Your task to perform on an android device: set default search engine in the chrome app Image 0: 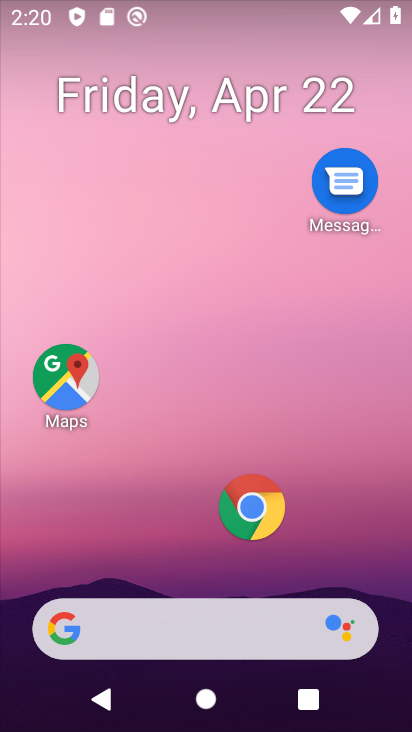
Step 0: click (255, 509)
Your task to perform on an android device: set default search engine in the chrome app Image 1: 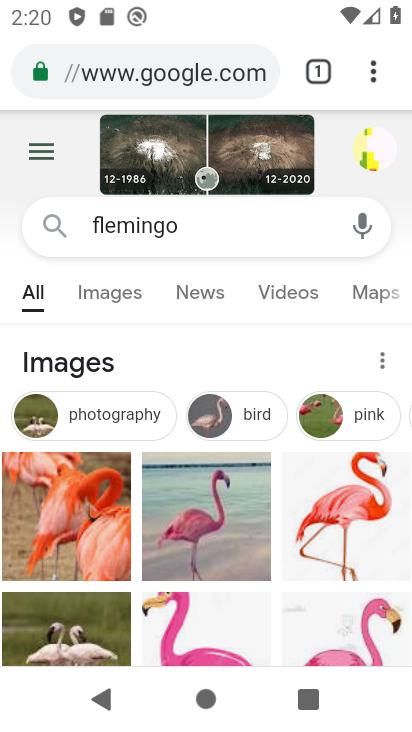
Step 1: click (375, 78)
Your task to perform on an android device: set default search engine in the chrome app Image 2: 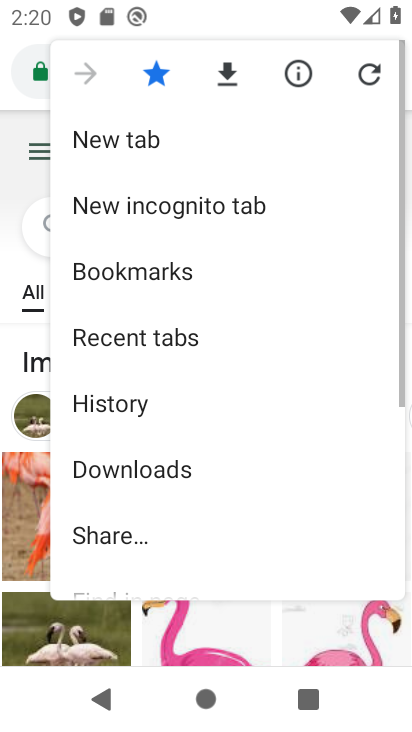
Step 2: drag from (158, 515) to (177, 210)
Your task to perform on an android device: set default search engine in the chrome app Image 3: 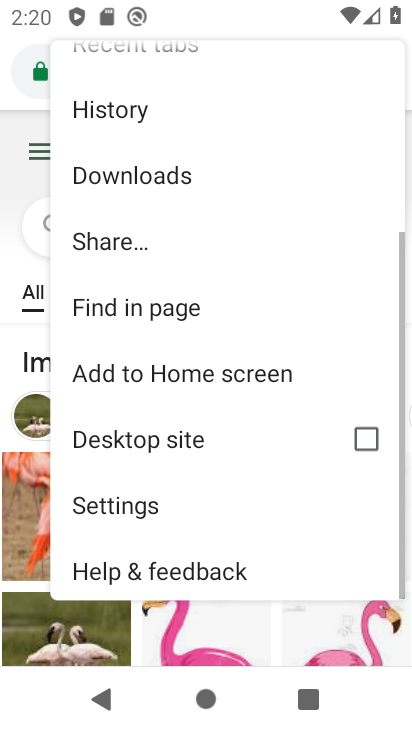
Step 3: click (125, 514)
Your task to perform on an android device: set default search engine in the chrome app Image 4: 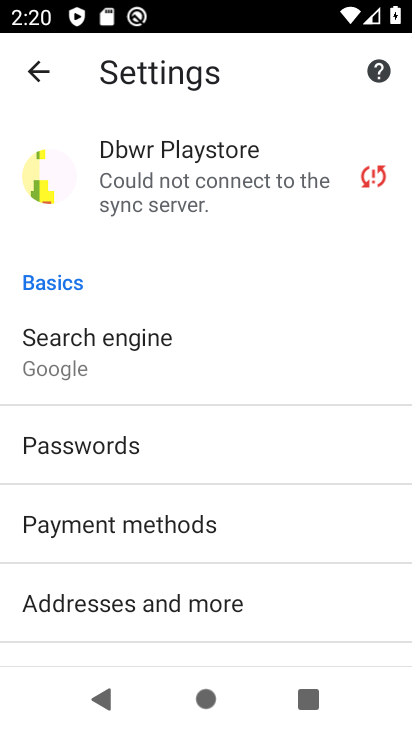
Step 4: click (118, 555)
Your task to perform on an android device: set default search engine in the chrome app Image 5: 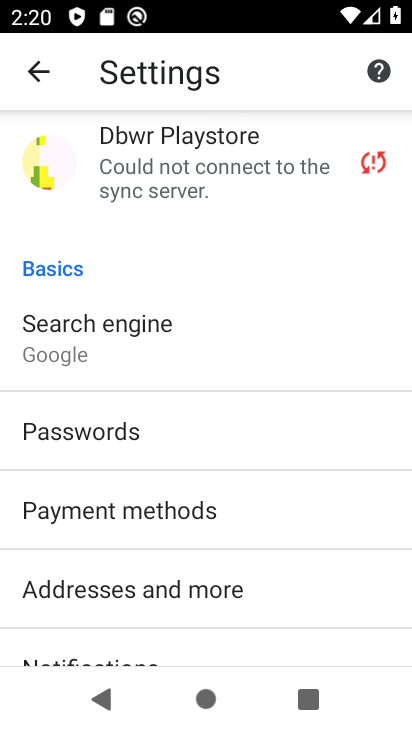
Step 5: click (96, 350)
Your task to perform on an android device: set default search engine in the chrome app Image 6: 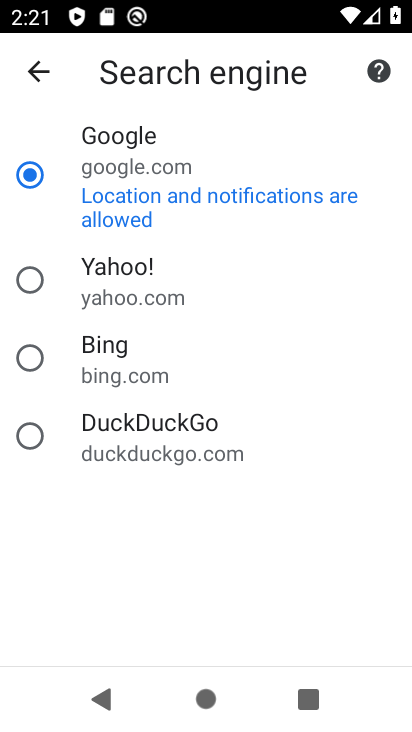
Step 6: click (34, 354)
Your task to perform on an android device: set default search engine in the chrome app Image 7: 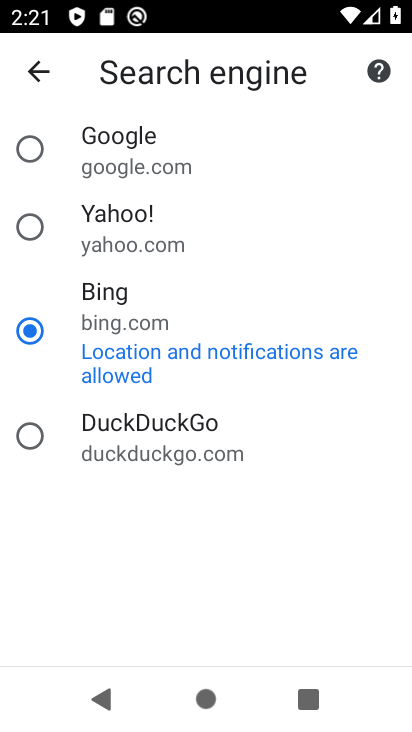
Step 7: task complete